Your task to perform on an android device: see tabs open on other devices in the chrome app Image 0: 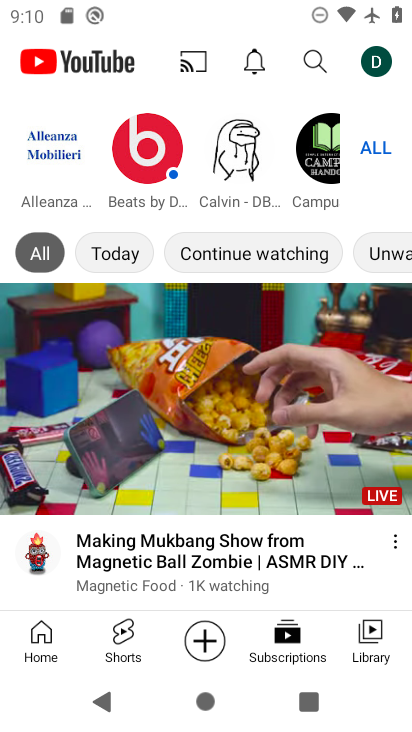
Step 0: press home button
Your task to perform on an android device: see tabs open on other devices in the chrome app Image 1: 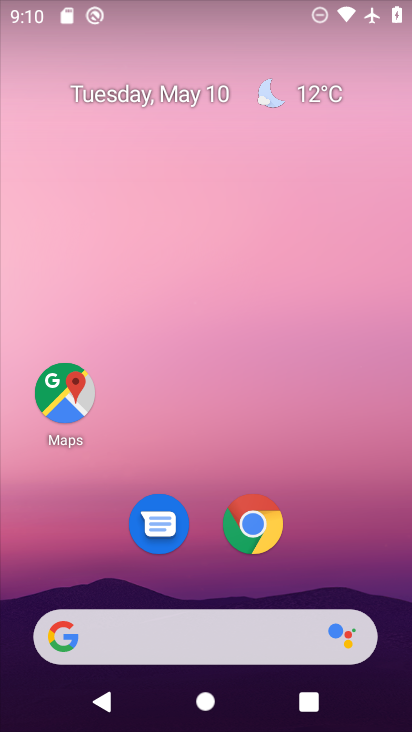
Step 1: click (237, 491)
Your task to perform on an android device: see tabs open on other devices in the chrome app Image 2: 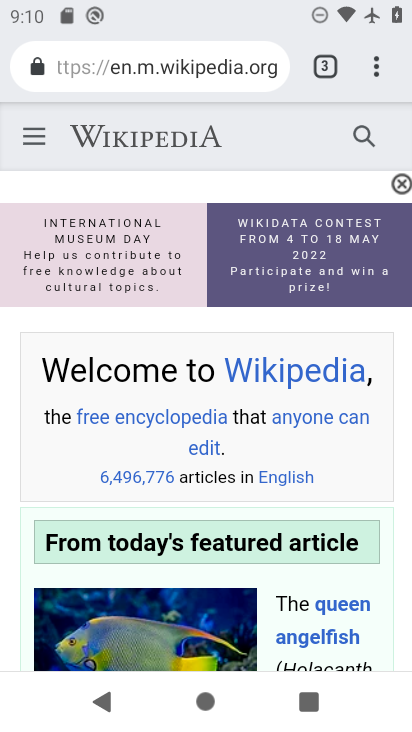
Step 2: click (373, 69)
Your task to perform on an android device: see tabs open on other devices in the chrome app Image 3: 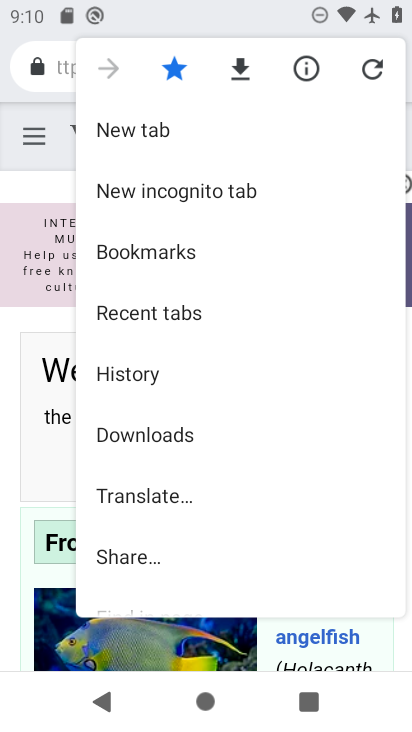
Step 3: click (194, 305)
Your task to perform on an android device: see tabs open on other devices in the chrome app Image 4: 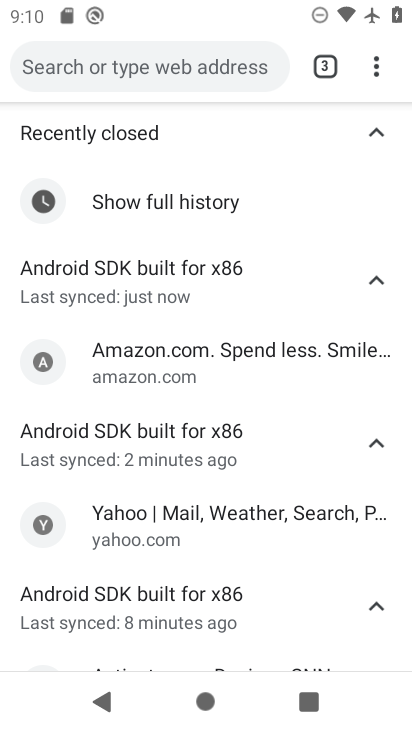
Step 4: task complete